Your task to perform on an android device: turn off location Image 0: 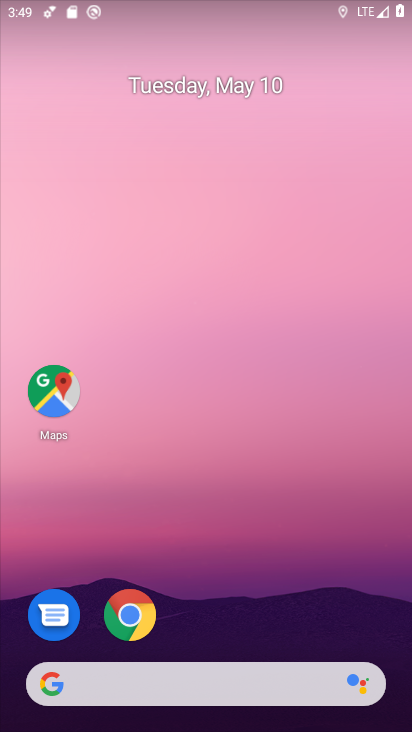
Step 0: drag from (274, 675) to (286, 21)
Your task to perform on an android device: turn off location Image 1: 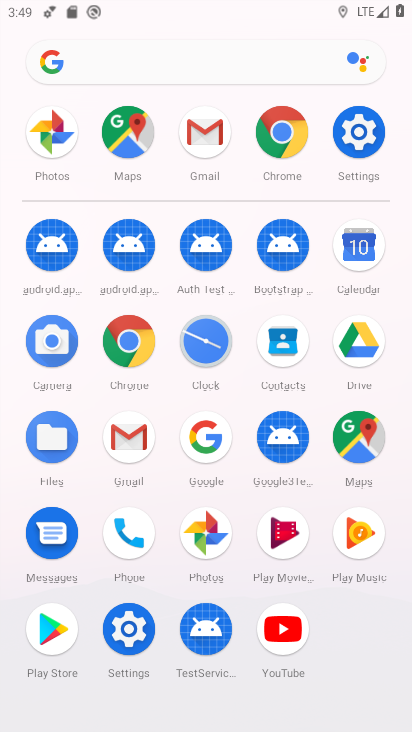
Step 1: click (356, 126)
Your task to perform on an android device: turn off location Image 2: 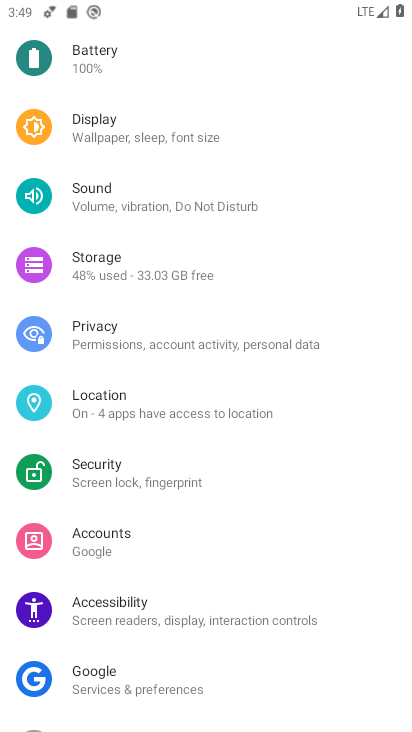
Step 2: click (127, 398)
Your task to perform on an android device: turn off location Image 3: 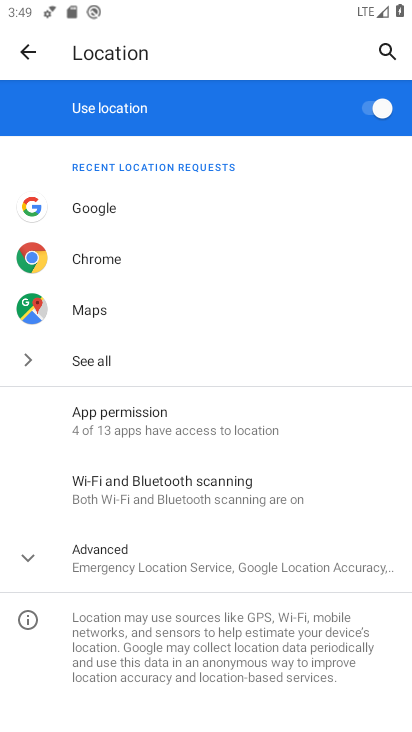
Step 3: click (374, 110)
Your task to perform on an android device: turn off location Image 4: 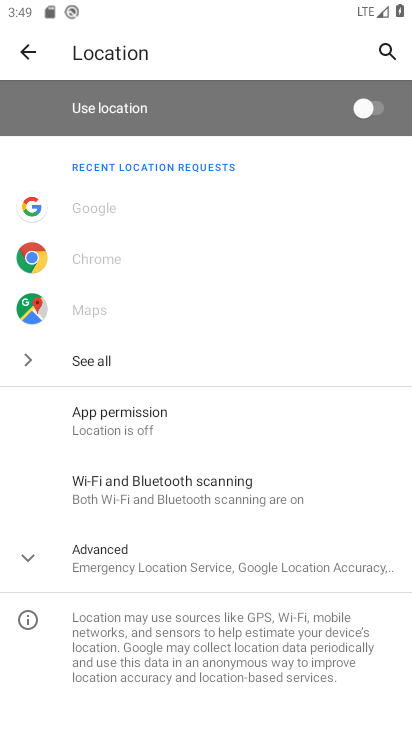
Step 4: task complete